Your task to perform on an android device: Go to Google Image 0: 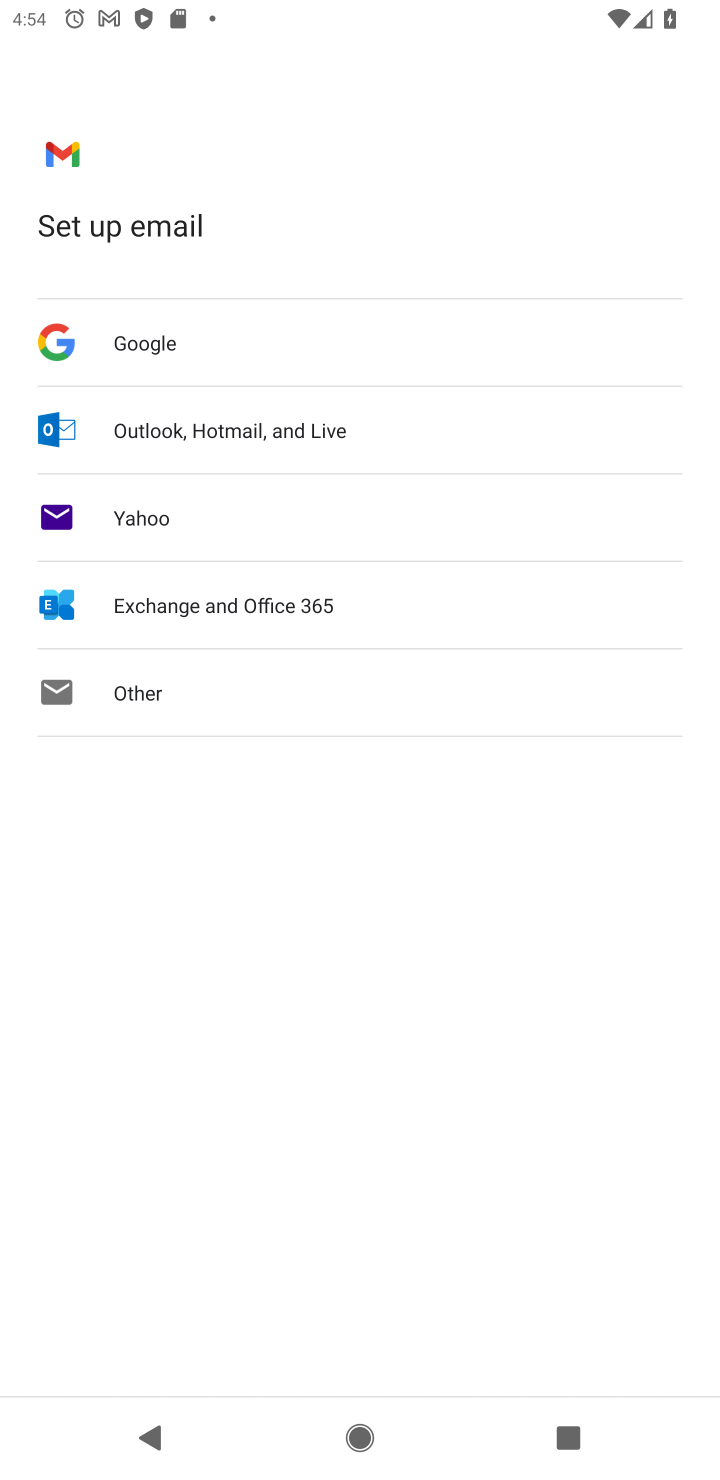
Step 0: press home button
Your task to perform on an android device: Go to Google Image 1: 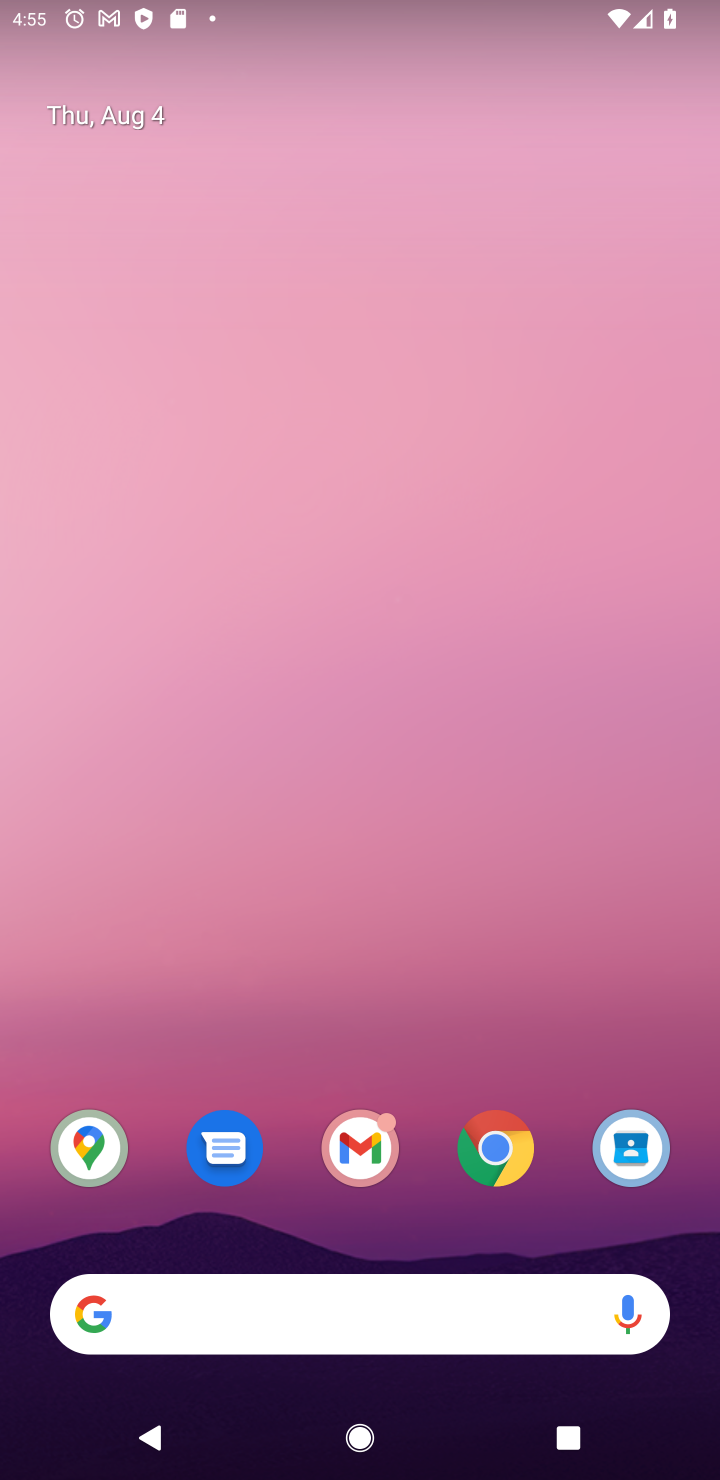
Step 1: click (511, 1158)
Your task to perform on an android device: Go to Google Image 2: 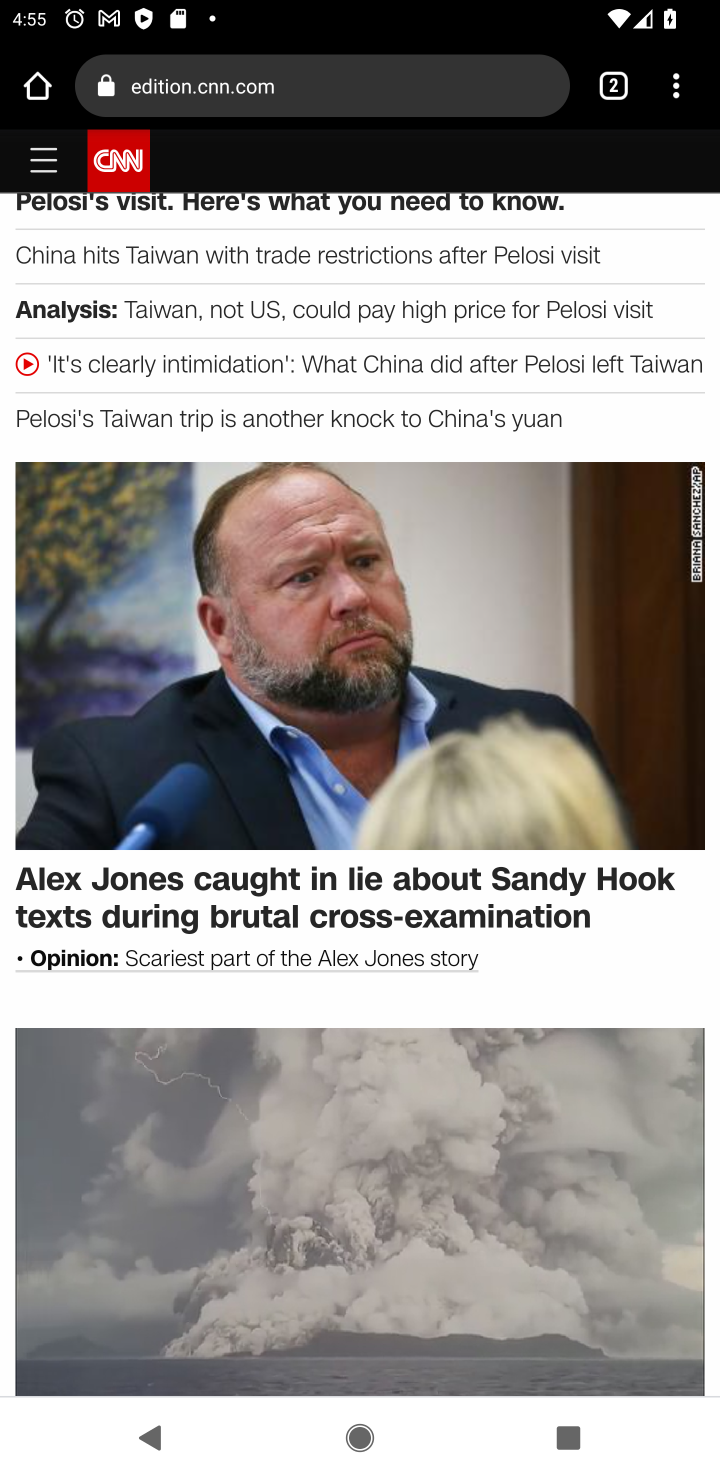
Step 2: task complete